Your task to perform on an android device: Search for pizza restaurants on Maps Image 0: 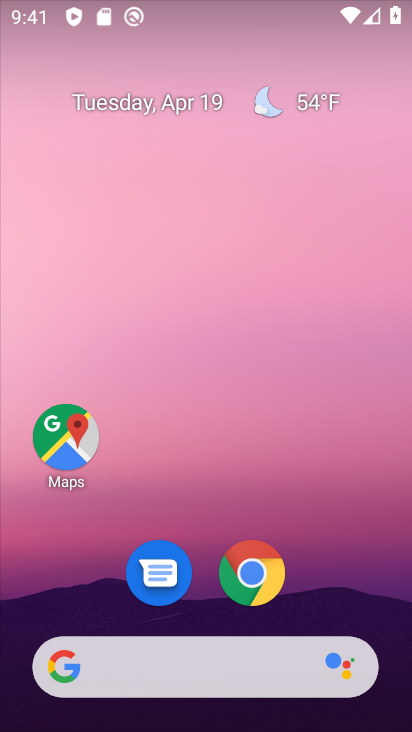
Step 0: click (72, 444)
Your task to perform on an android device: Search for pizza restaurants on Maps Image 1: 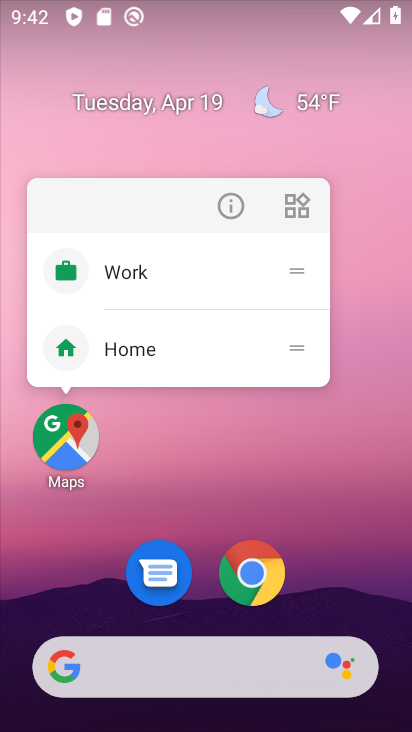
Step 1: click (68, 442)
Your task to perform on an android device: Search for pizza restaurants on Maps Image 2: 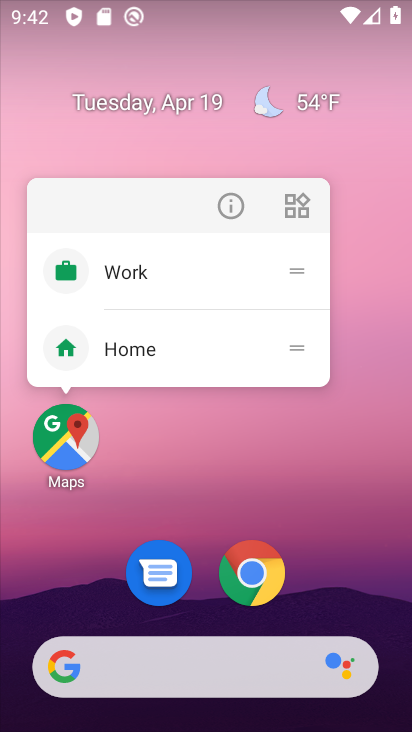
Step 2: drag from (209, 627) to (230, 276)
Your task to perform on an android device: Search for pizza restaurants on Maps Image 3: 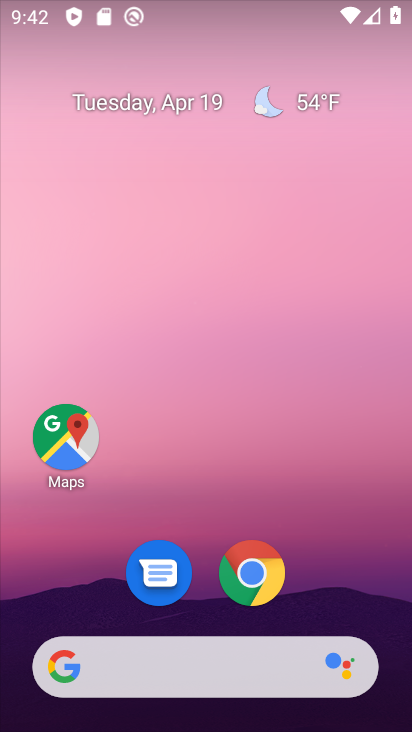
Step 3: drag from (245, 618) to (263, 249)
Your task to perform on an android device: Search for pizza restaurants on Maps Image 4: 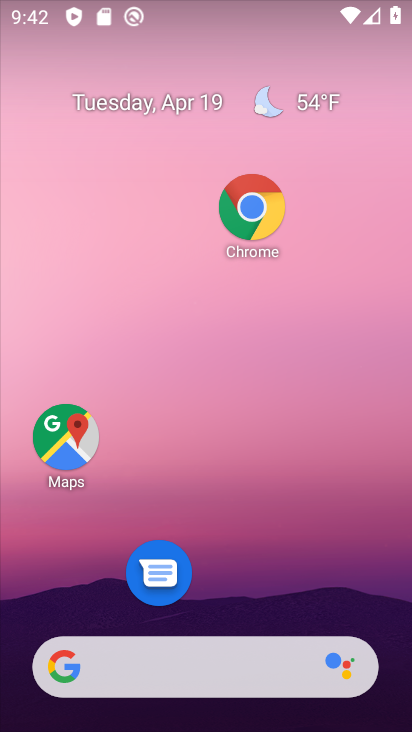
Step 4: drag from (217, 505) to (213, 97)
Your task to perform on an android device: Search for pizza restaurants on Maps Image 5: 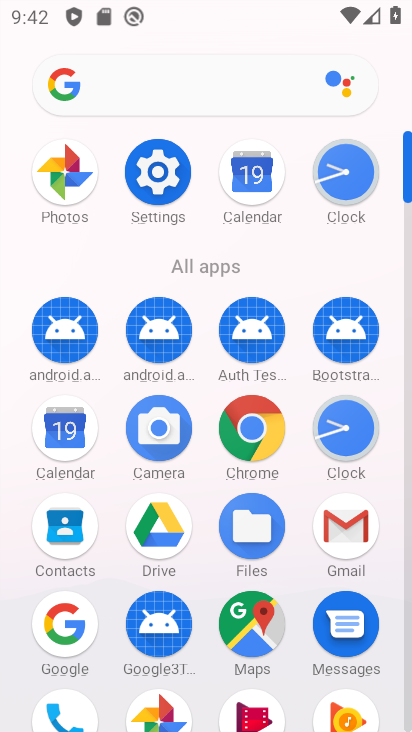
Step 5: click (248, 631)
Your task to perform on an android device: Search for pizza restaurants on Maps Image 6: 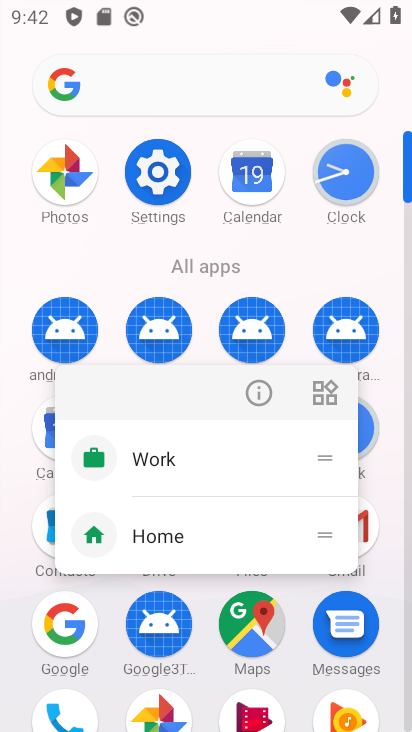
Step 6: click (250, 632)
Your task to perform on an android device: Search for pizza restaurants on Maps Image 7: 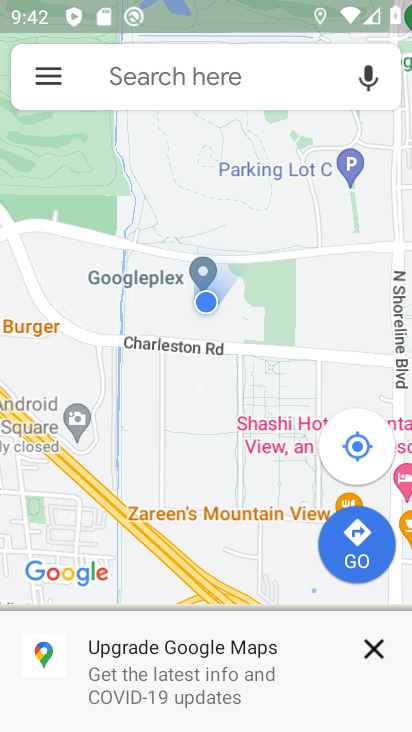
Step 7: click (381, 653)
Your task to perform on an android device: Search for pizza restaurants on Maps Image 8: 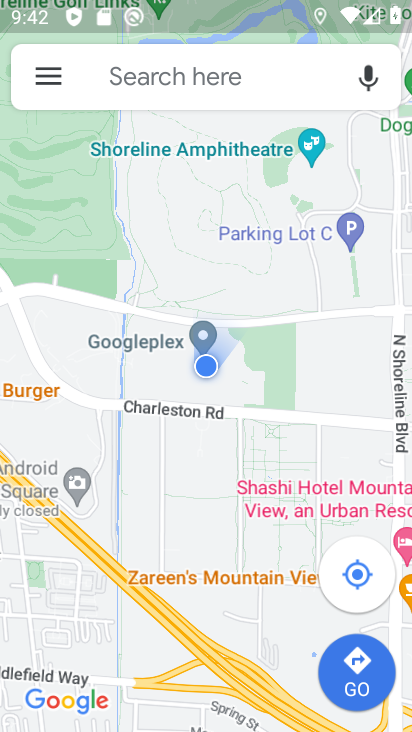
Step 8: type "pizza restaurants"
Your task to perform on an android device: Search for pizza restaurants on Maps Image 9: 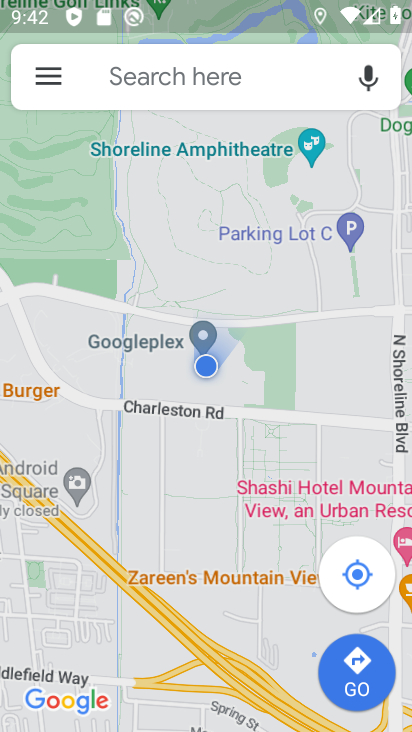
Step 9: click (224, 75)
Your task to perform on an android device: Search for pizza restaurants on Maps Image 10: 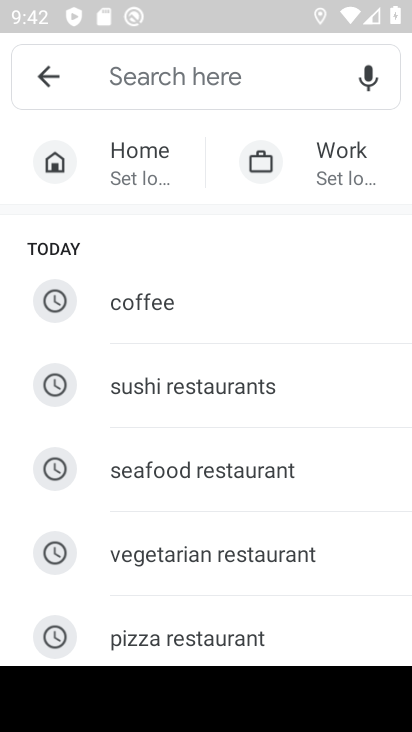
Step 10: click (165, 638)
Your task to perform on an android device: Search for pizza restaurants on Maps Image 11: 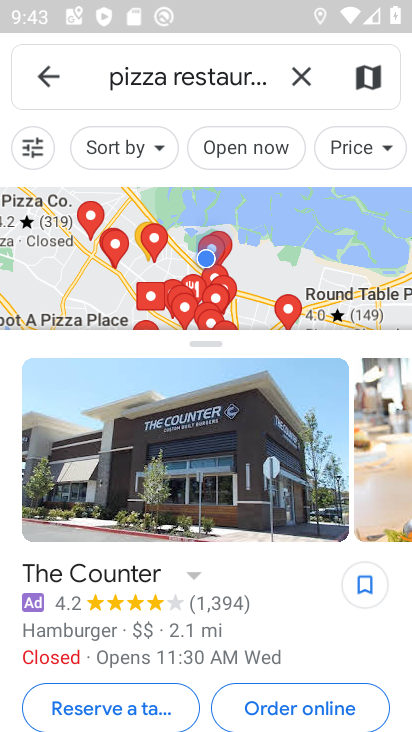
Step 11: task complete